Your task to perform on an android device: What's the weather today? Image 0: 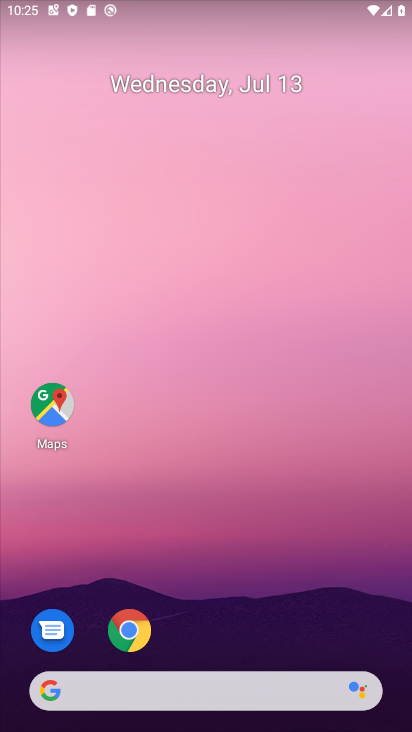
Step 0: drag from (270, 606) to (191, 19)
Your task to perform on an android device: What's the weather today? Image 1: 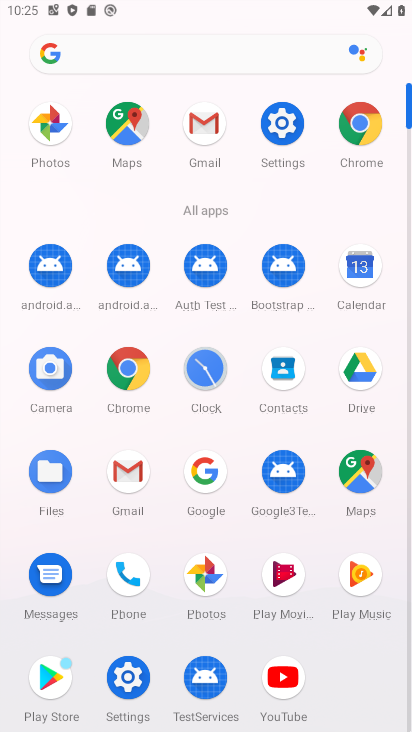
Step 1: click (212, 477)
Your task to perform on an android device: What's the weather today? Image 2: 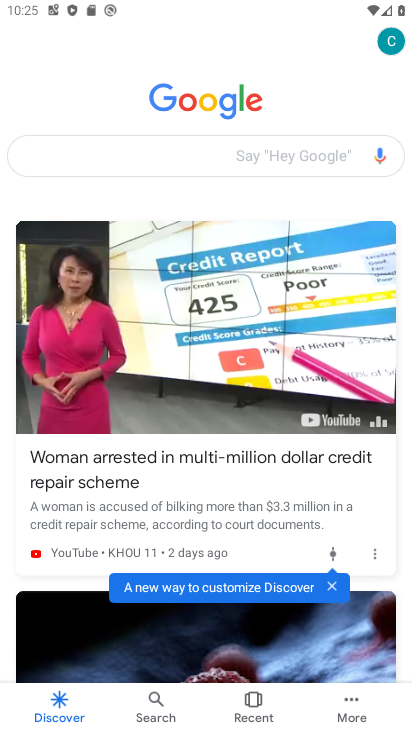
Step 2: click (227, 161)
Your task to perform on an android device: What's the weather today? Image 3: 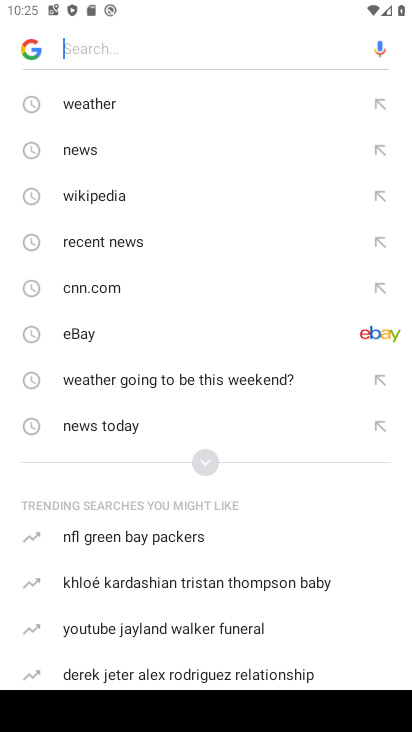
Step 3: click (101, 112)
Your task to perform on an android device: What's the weather today? Image 4: 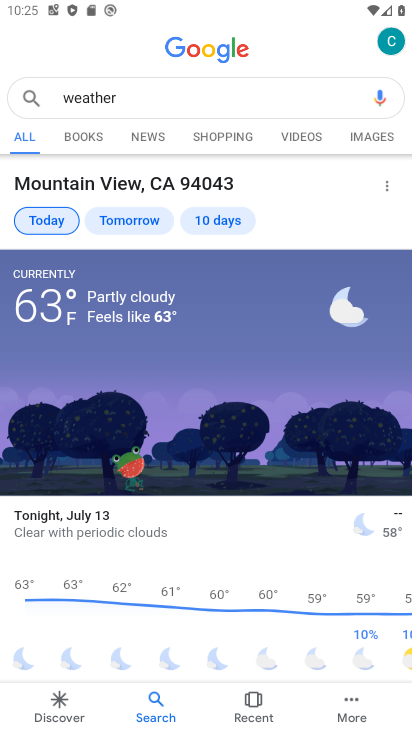
Step 4: task complete